Your task to perform on an android device: Open location settings Image 0: 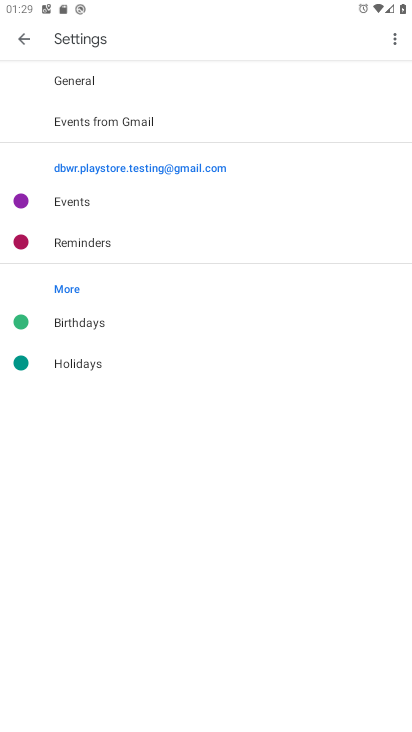
Step 0: press home button
Your task to perform on an android device: Open location settings Image 1: 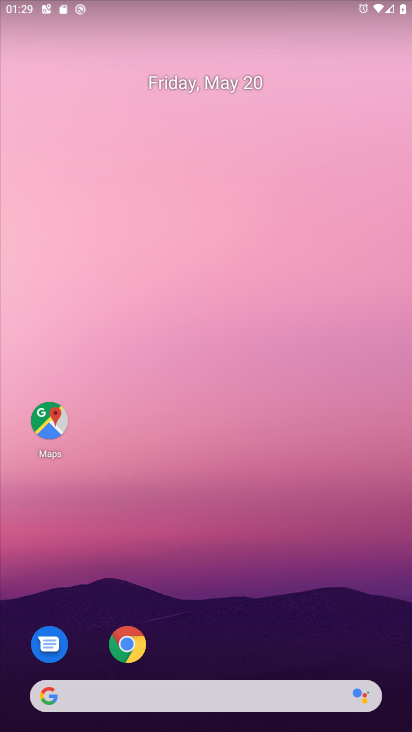
Step 1: drag from (184, 682) to (173, 296)
Your task to perform on an android device: Open location settings Image 2: 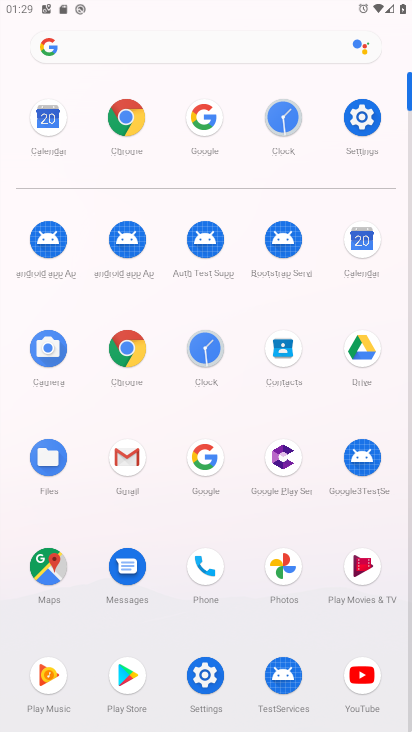
Step 2: click (365, 115)
Your task to perform on an android device: Open location settings Image 3: 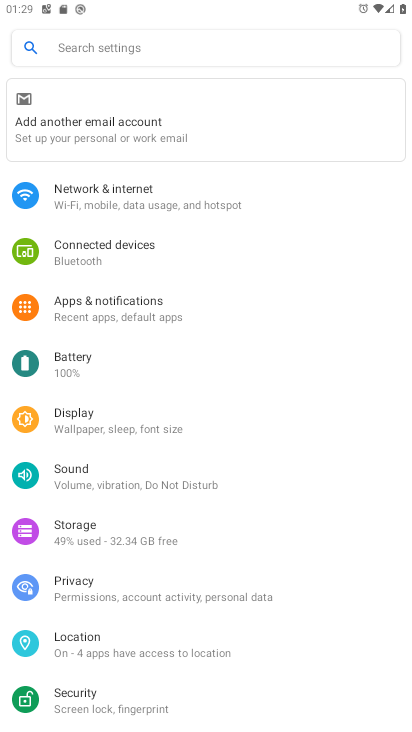
Step 3: click (104, 649)
Your task to perform on an android device: Open location settings Image 4: 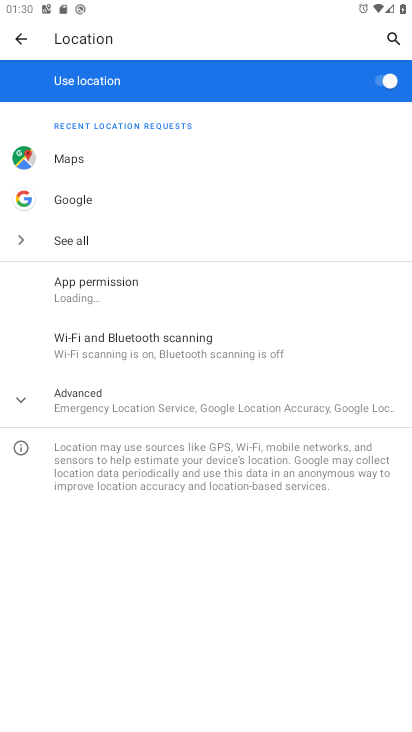
Step 4: click (102, 391)
Your task to perform on an android device: Open location settings Image 5: 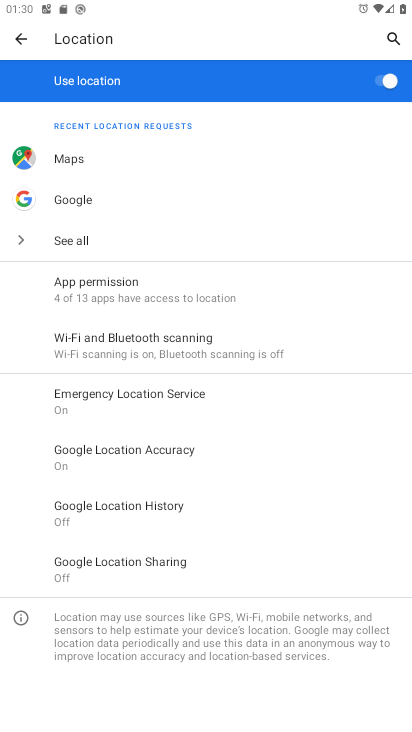
Step 5: task complete